Your task to perform on an android device: star an email in the gmail app Image 0: 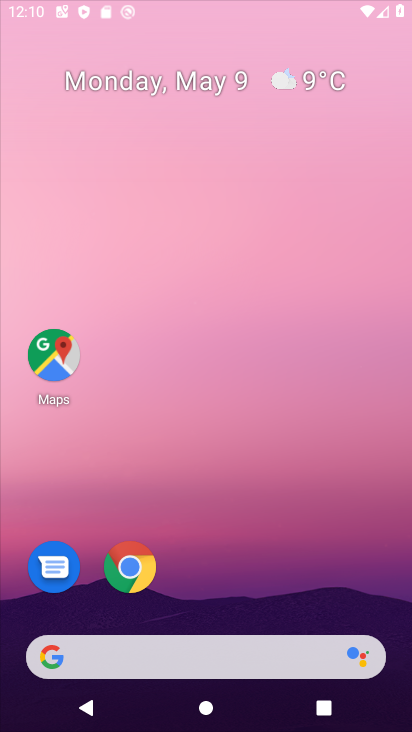
Step 0: click (167, 219)
Your task to perform on an android device: star an email in the gmail app Image 1: 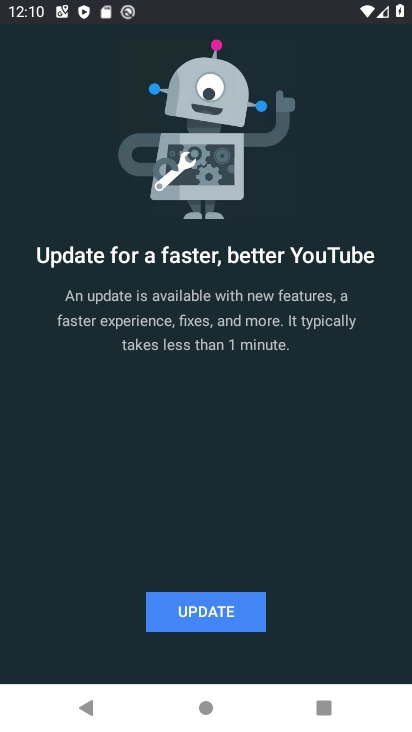
Step 1: press home button
Your task to perform on an android device: star an email in the gmail app Image 2: 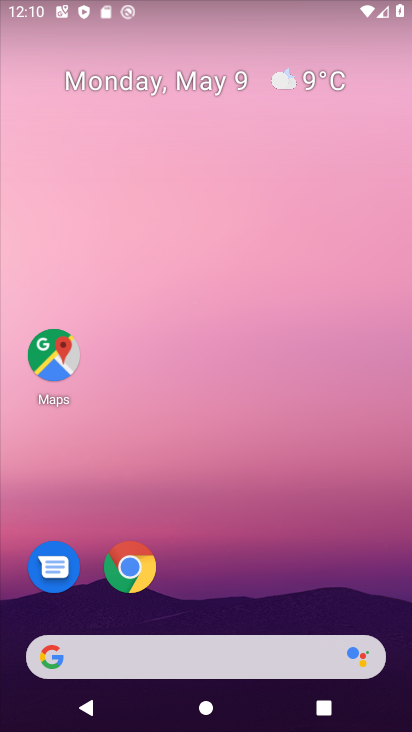
Step 2: drag from (249, 680) to (180, 262)
Your task to perform on an android device: star an email in the gmail app Image 3: 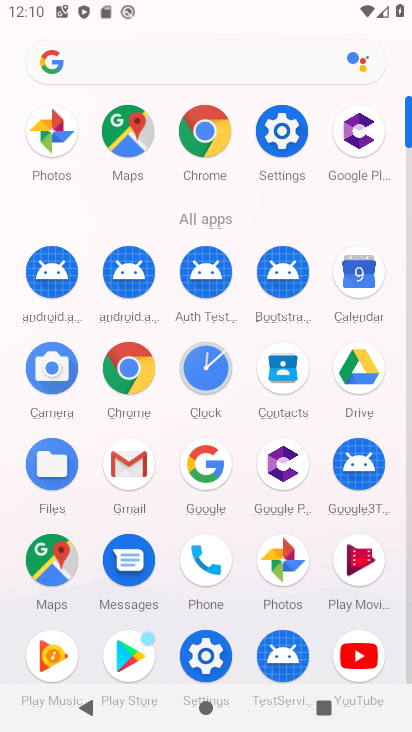
Step 3: click (130, 461)
Your task to perform on an android device: star an email in the gmail app Image 4: 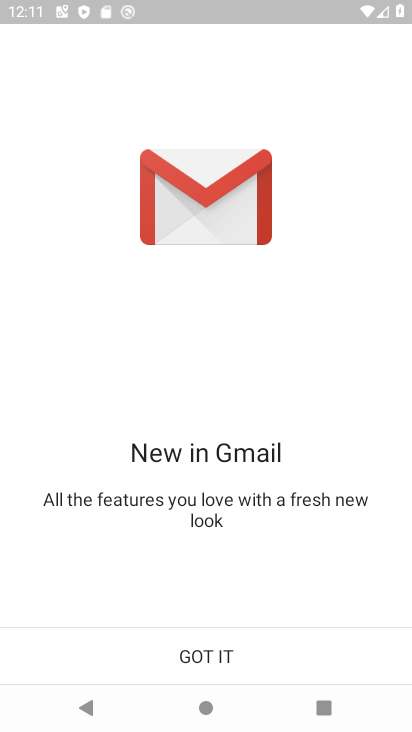
Step 4: click (235, 658)
Your task to perform on an android device: star an email in the gmail app Image 5: 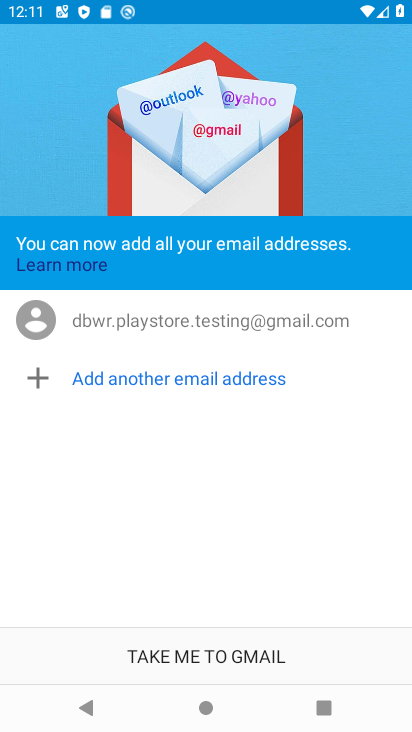
Step 5: click (235, 658)
Your task to perform on an android device: star an email in the gmail app Image 6: 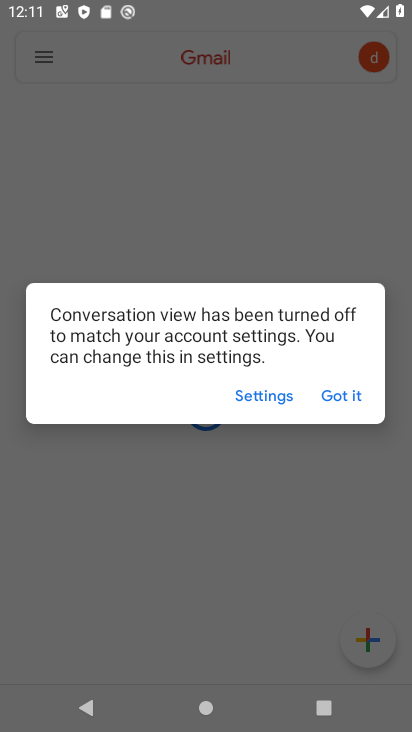
Step 6: click (326, 391)
Your task to perform on an android device: star an email in the gmail app Image 7: 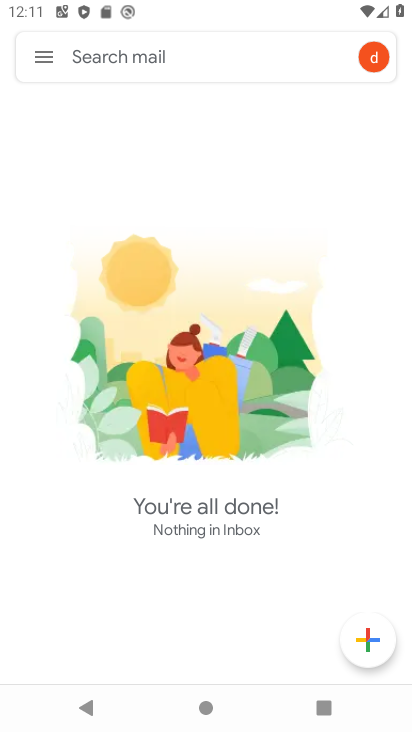
Step 7: click (24, 57)
Your task to perform on an android device: star an email in the gmail app Image 8: 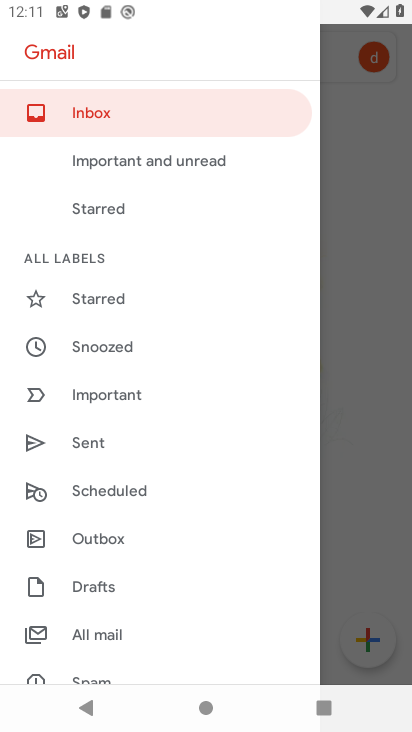
Step 8: click (122, 304)
Your task to perform on an android device: star an email in the gmail app Image 9: 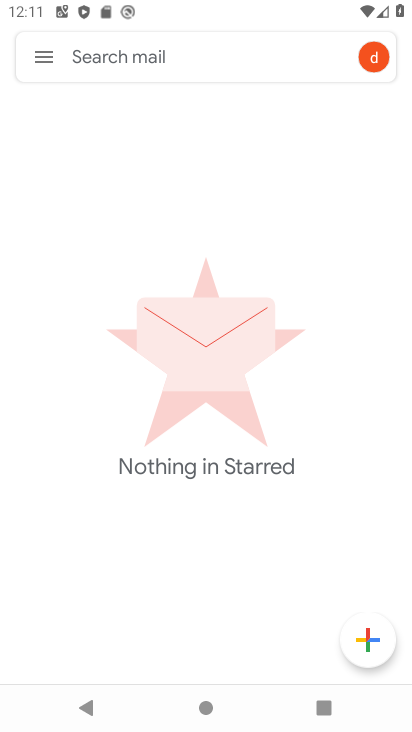
Step 9: task complete